Your task to perform on an android device: Go to ESPN.com Image 0: 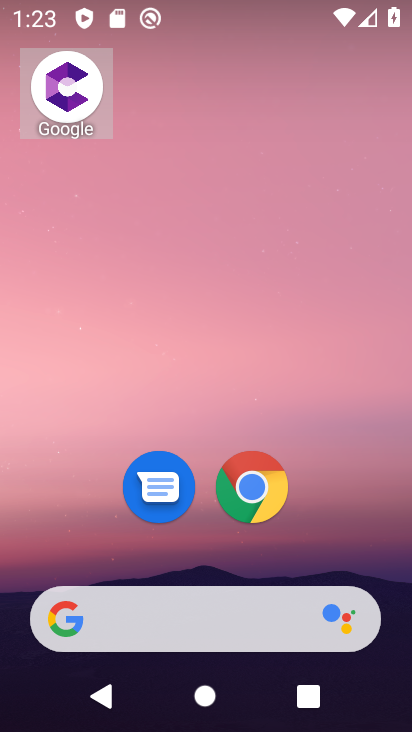
Step 0: click (236, 495)
Your task to perform on an android device: Go to ESPN.com Image 1: 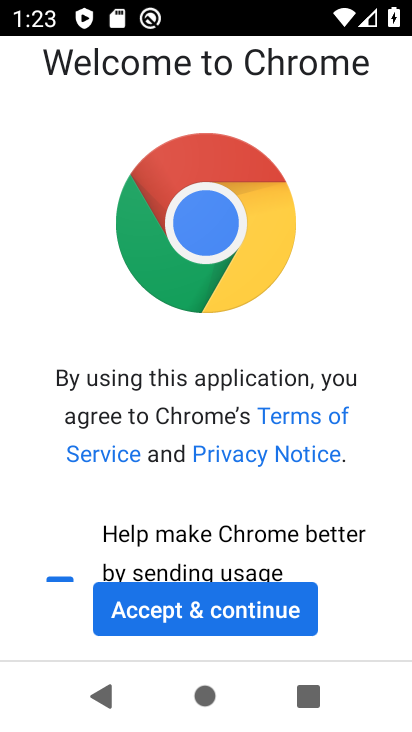
Step 1: click (199, 608)
Your task to perform on an android device: Go to ESPN.com Image 2: 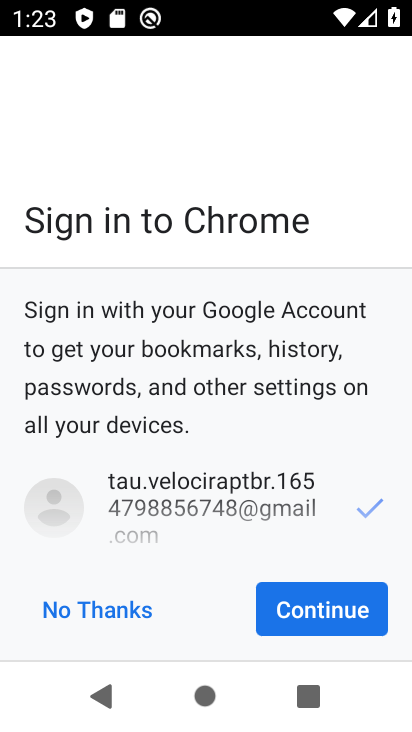
Step 2: click (286, 610)
Your task to perform on an android device: Go to ESPN.com Image 3: 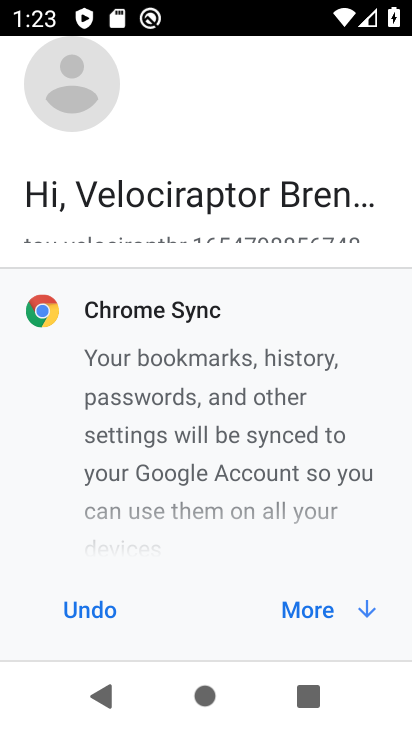
Step 3: click (295, 610)
Your task to perform on an android device: Go to ESPN.com Image 4: 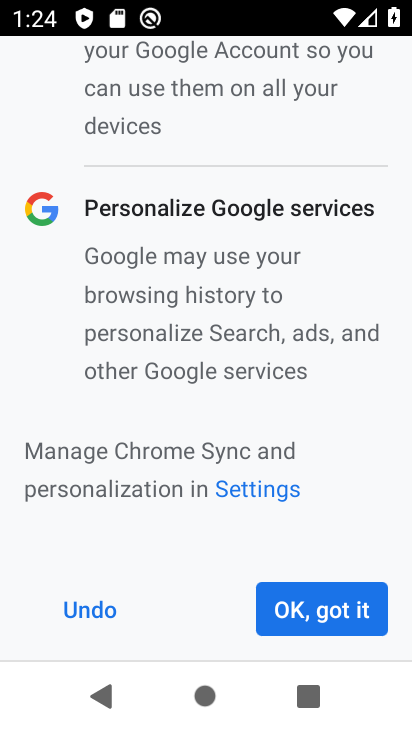
Step 4: click (296, 613)
Your task to perform on an android device: Go to ESPN.com Image 5: 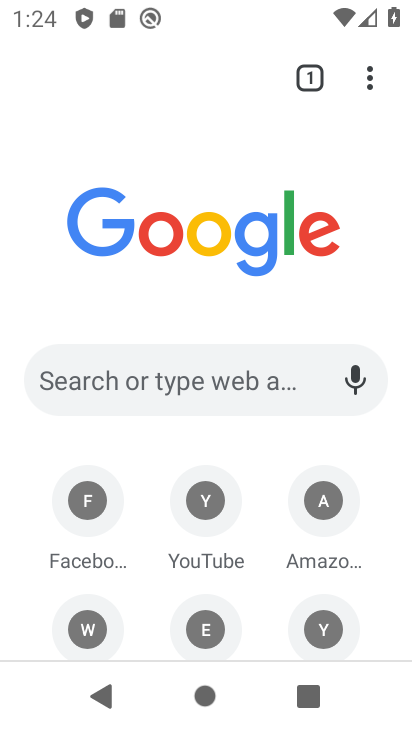
Step 5: drag from (219, 594) to (306, 265)
Your task to perform on an android device: Go to ESPN.com Image 6: 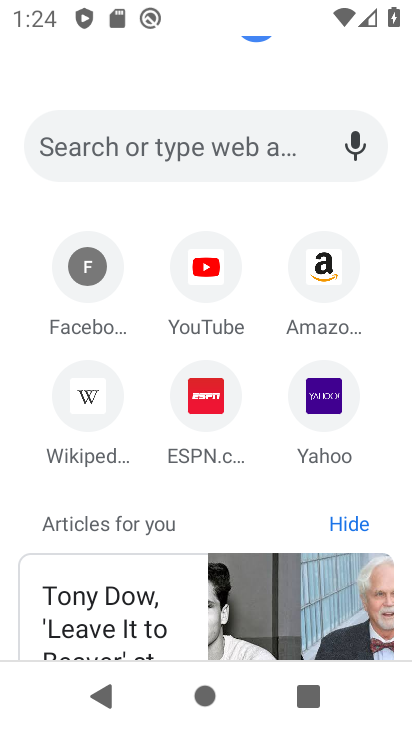
Step 6: click (199, 405)
Your task to perform on an android device: Go to ESPN.com Image 7: 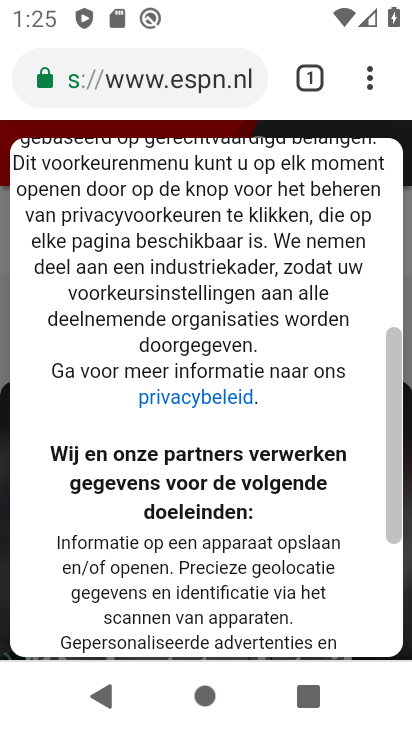
Step 7: task complete